Your task to perform on an android device: turn on priority inbox in the gmail app Image 0: 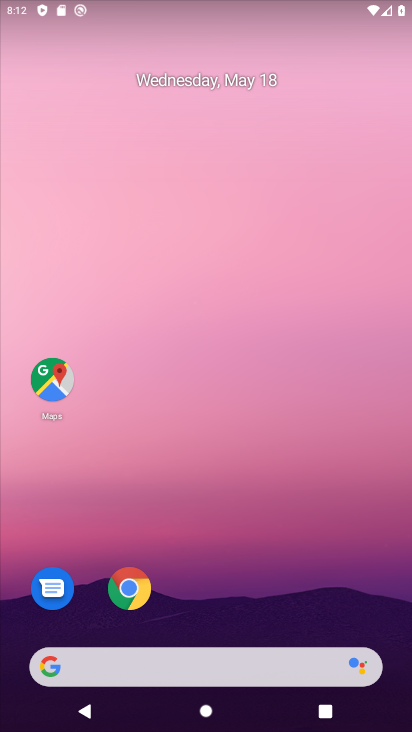
Step 0: drag from (345, 603) to (291, 11)
Your task to perform on an android device: turn on priority inbox in the gmail app Image 1: 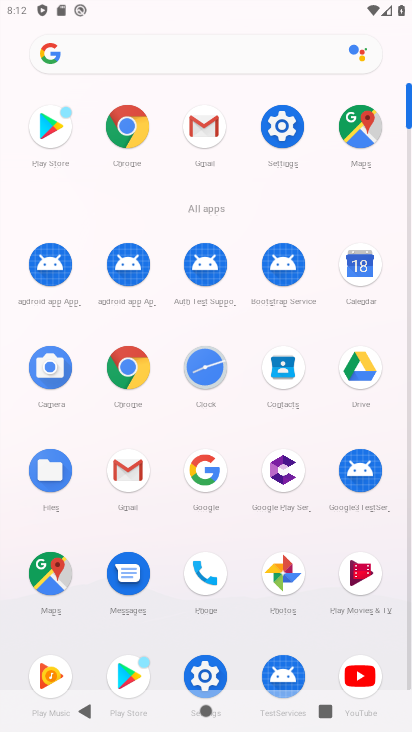
Step 1: click (202, 147)
Your task to perform on an android device: turn on priority inbox in the gmail app Image 2: 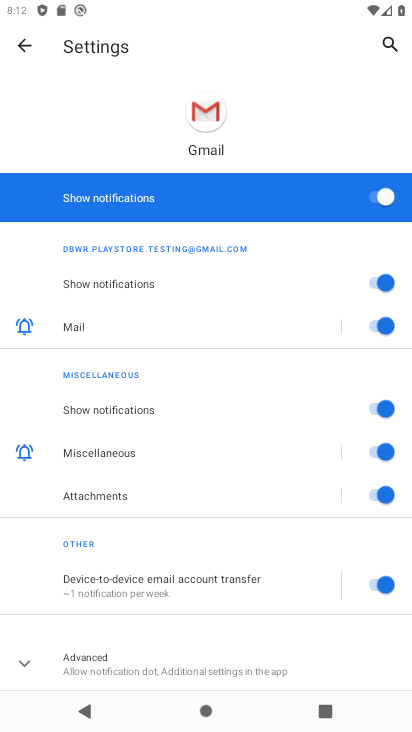
Step 2: click (27, 54)
Your task to perform on an android device: turn on priority inbox in the gmail app Image 3: 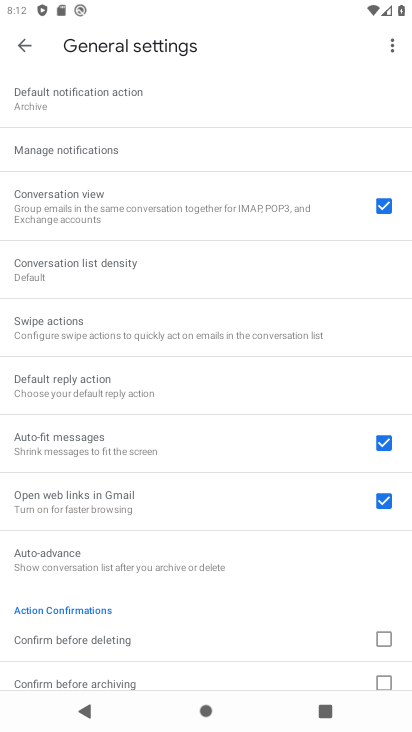
Step 3: click (26, 52)
Your task to perform on an android device: turn on priority inbox in the gmail app Image 4: 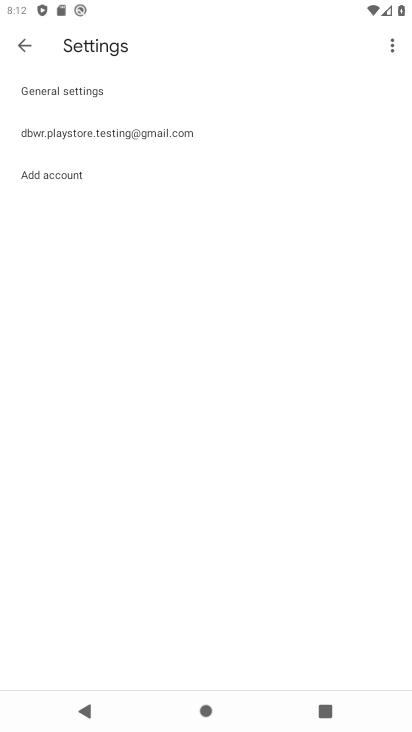
Step 4: click (53, 133)
Your task to perform on an android device: turn on priority inbox in the gmail app Image 5: 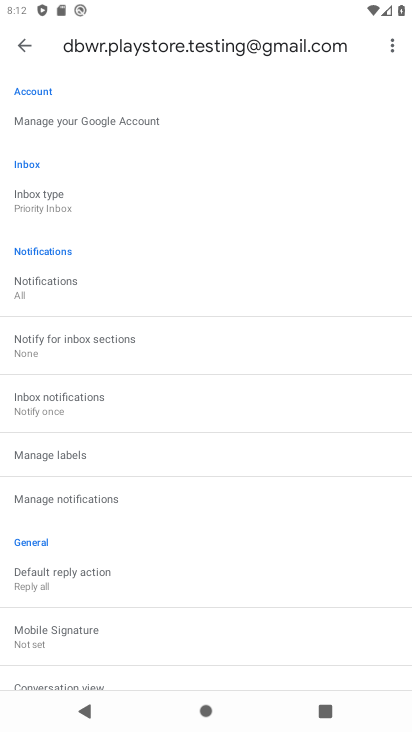
Step 5: click (53, 203)
Your task to perform on an android device: turn on priority inbox in the gmail app Image 6: 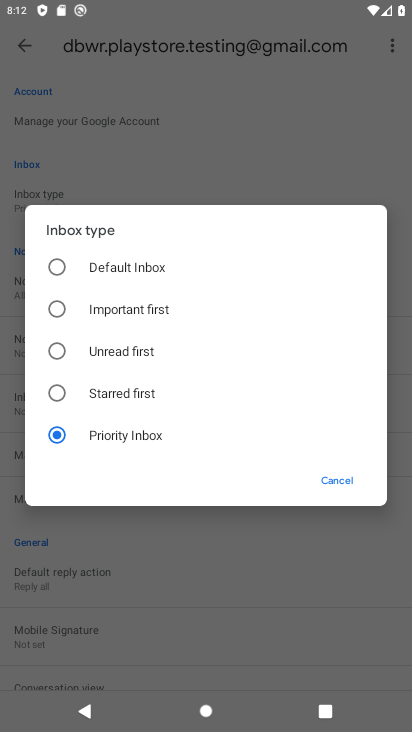
Step 6: task complete